Your task to perform on an android device: add a contact in the contacts app Image 0: 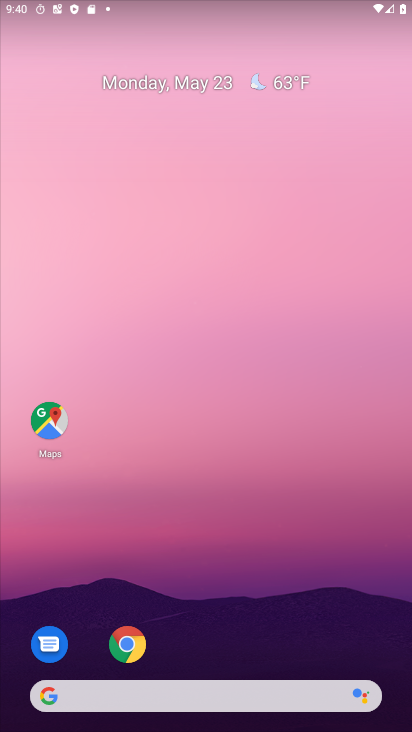
Step 0: drag from (222, 570) to (242, 31)
Your task to perform on an android device: add a contact in the contacts app Image 1: 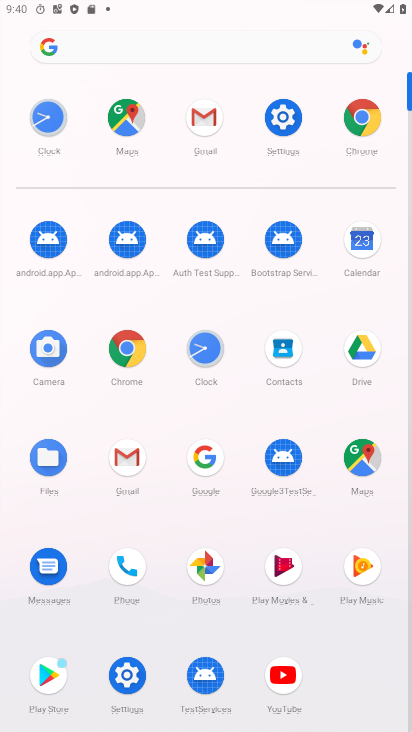
Step 1: click (285, 344)
Your task to perform on an android device: add a contact in the contacts app Image 2: 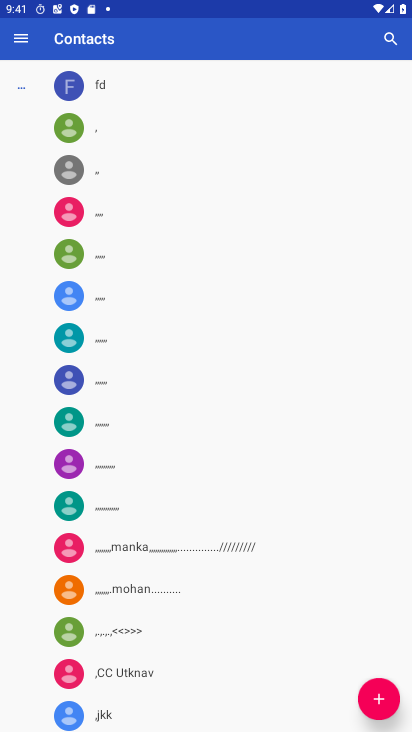
Step 2: click (388, 696)
Your task to perform on an android device: add a contact in the contacts app Image 3: 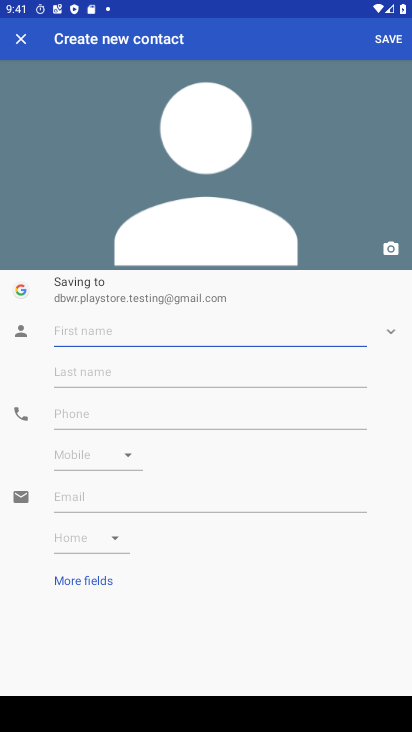
Step 3: type "hgctdxr"
Your task to perform on an android device: add a contact in the contacts app Image 4: 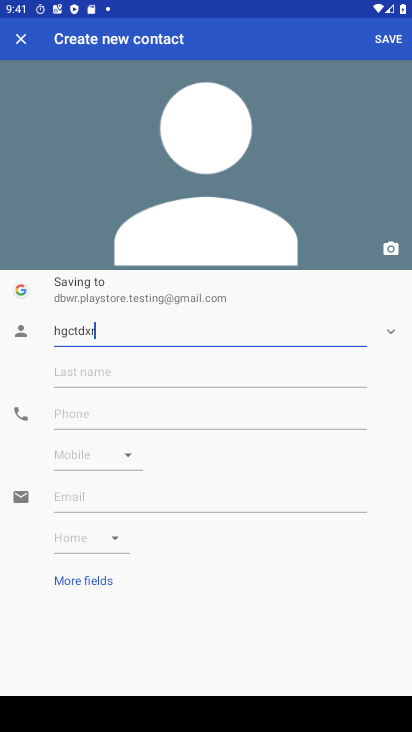
Step 4: click (384, 35)
Your task to perform on an android device: add a contact in the contacts app Image 5: 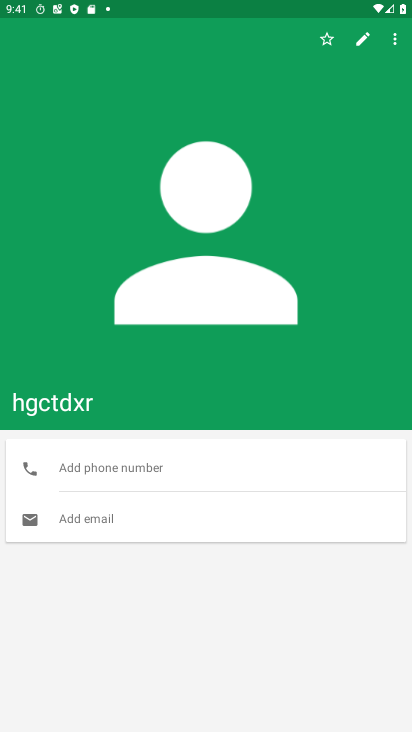
Step 5: task complete